Your task to perform on an android device: open sync settings in chrome Image 0: 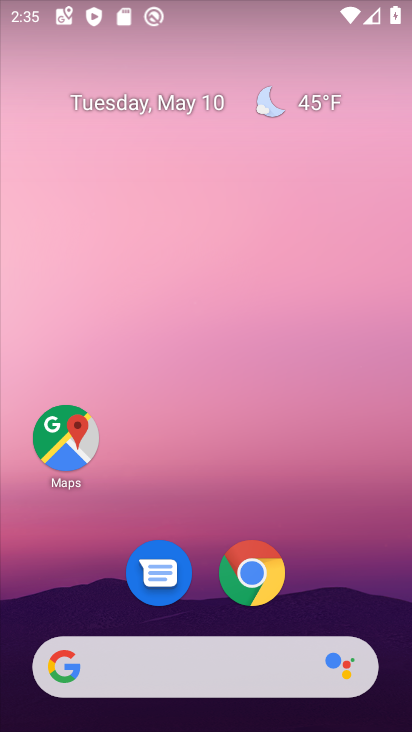
Step 0: click (241, 591)
Your task to perform on an android device: open sync settings in chrome Image 1: 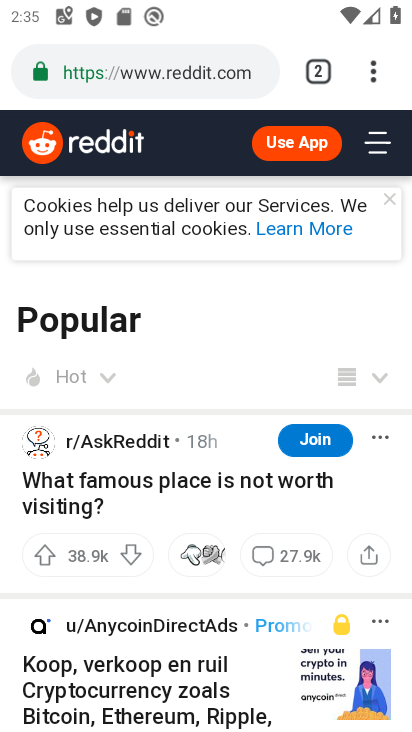
Step 1: drag from (365, 71) to (170, 579)
Your task to perform on an android device: open sync settings in chrome Image 2: 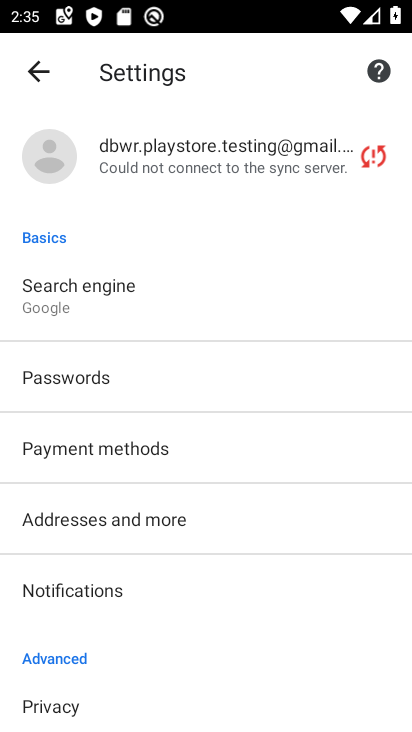
Step 2: click (175, 172)
Your task to perform on an android device: open sync settings in chrome Image 3: 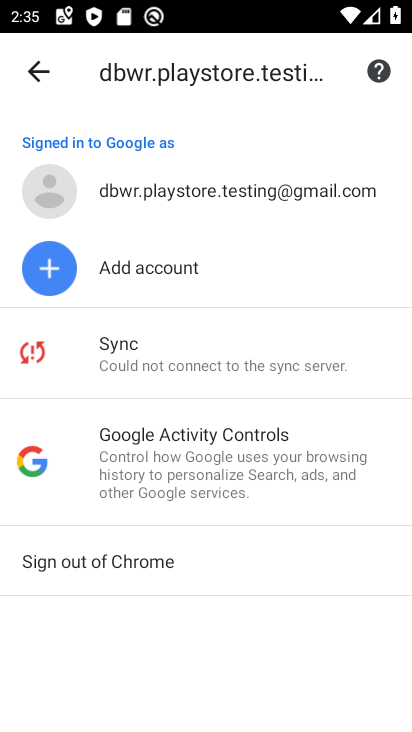
Step 3: click (89, 374)
Your task to perform on an android device: open sync settings in chrome Image 4: 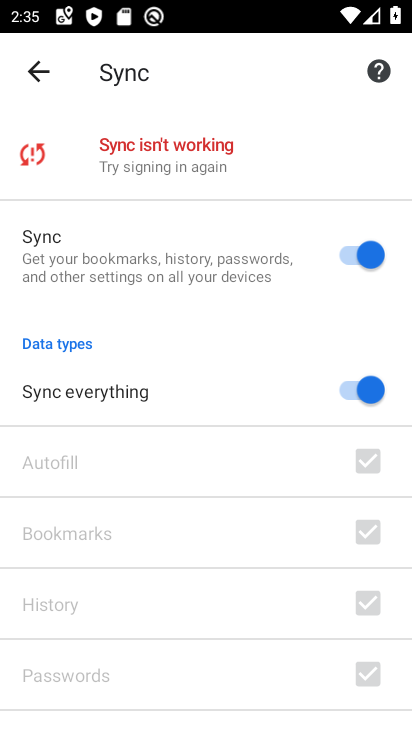
Step 4: task complete